Your task to perform on an android device: set the timer Image 0: 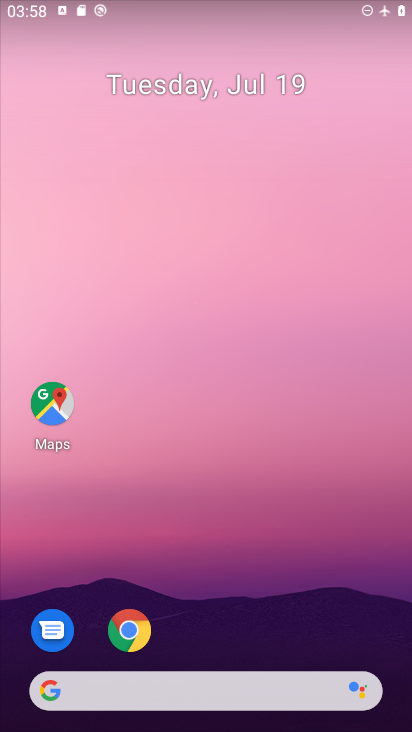
Step 0: drag from (369, 644) to (334, 112)
Your task to perform on an android device: set the timer Image 1: 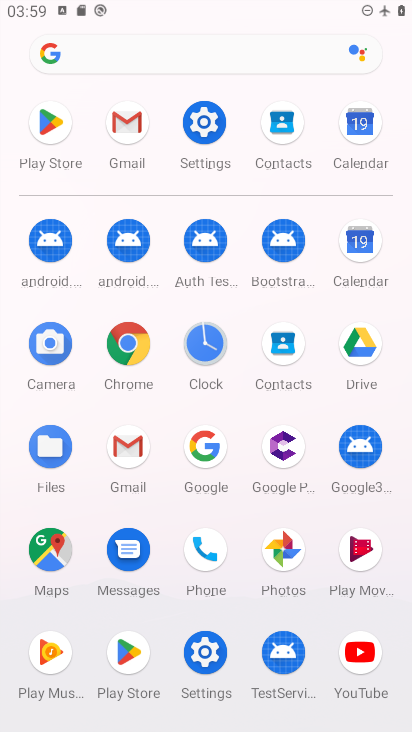
Step 1: click (204, 340)
Your task to perform on an android device: set the timer Image 2: 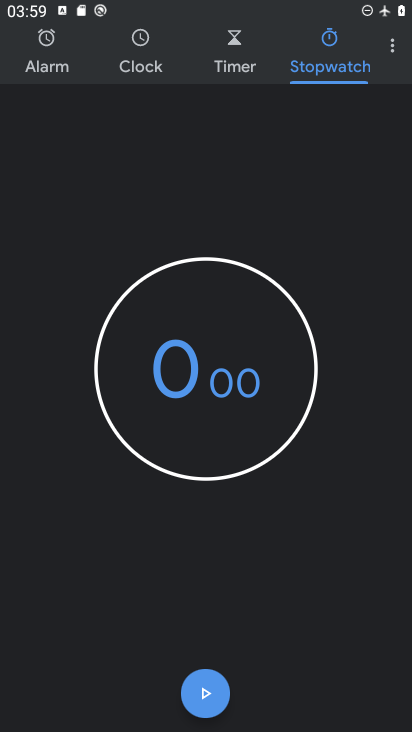
Step 2: click (228, 51)
Your task to perform on an android device: set the timer Image 3: 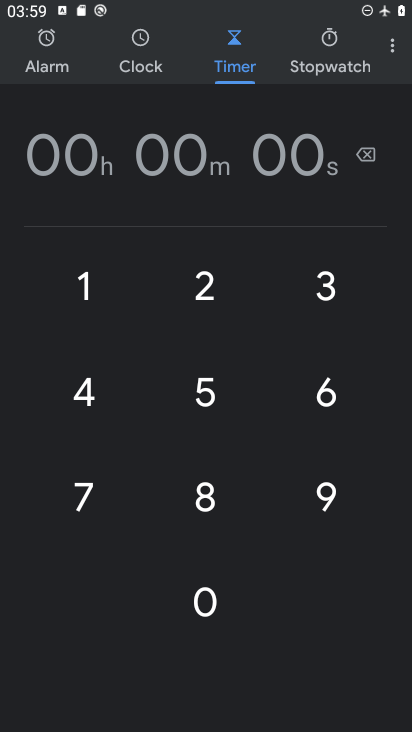
Step 3: click (80, 285)
Your task to perform on an android device: set the timer Image 4: 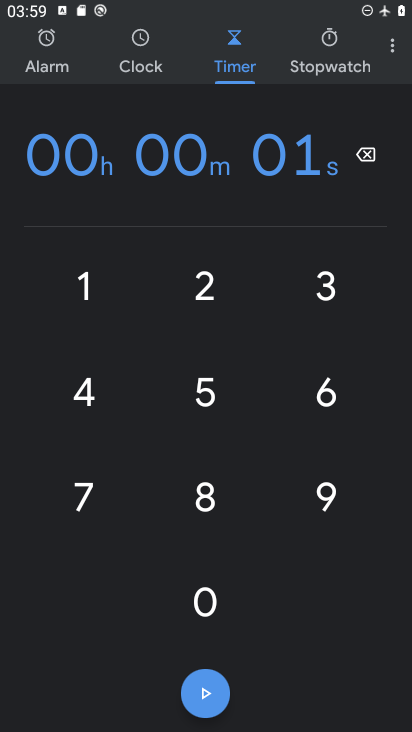
Step 4: click (332, 295)
Your task to perform on an android device: set the timer Image 5: 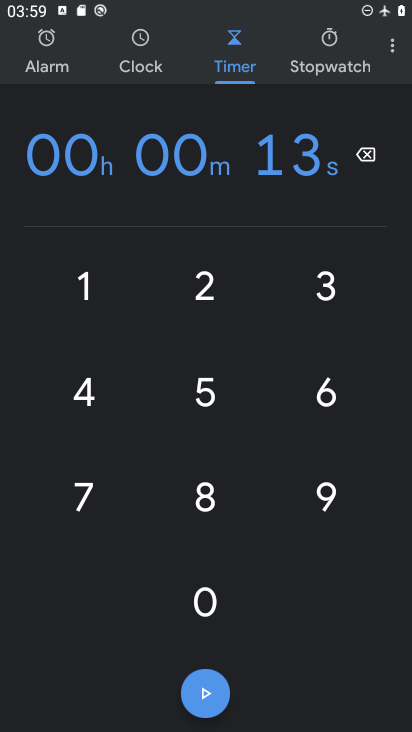
Step 5: click (207, 619)
Your task to perform on an android device: set the timer Image 6: 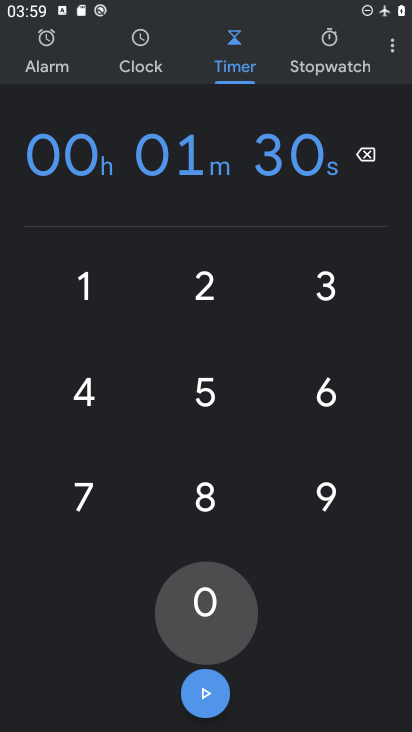
Step 6: click (207, 619)
Your task to perform on an android device: set the timer Image 7: 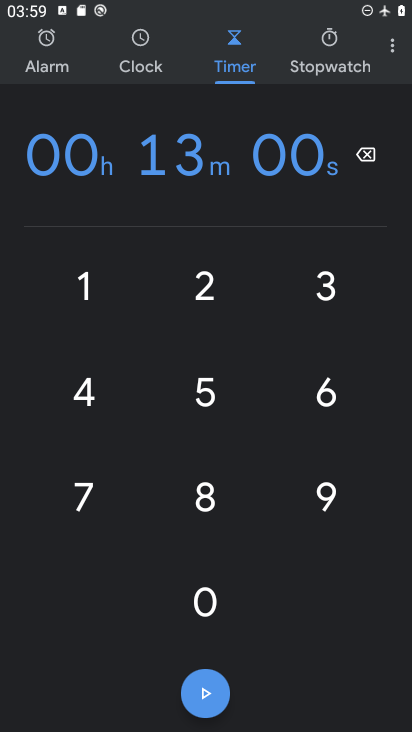
Step 7: click (207, 619)
Your task to perform on an android device: set the timer Image 8: 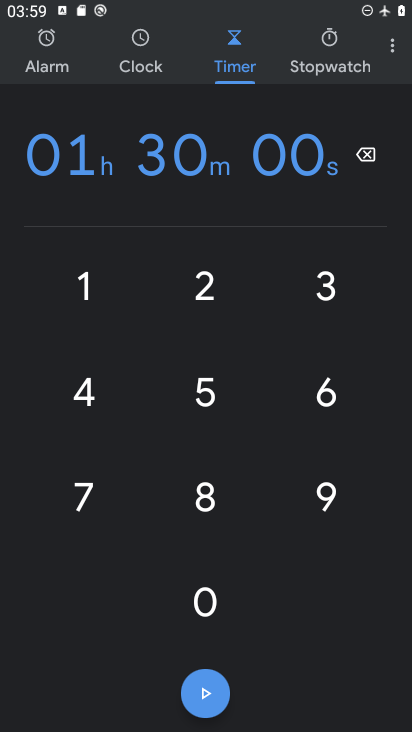
Step 8: task complete